Your task to perform on an android device: change the clock display to digital Image 0: 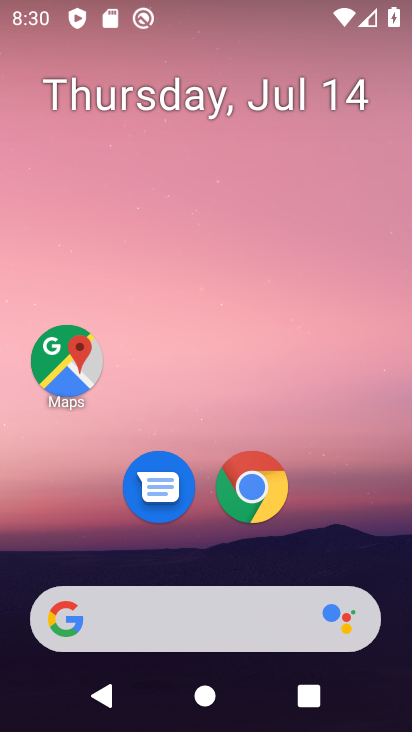
Step 0: drag from (191, 535) to (237, 70)
Your task to perform on an android device: change the clock display to digital Image 1: 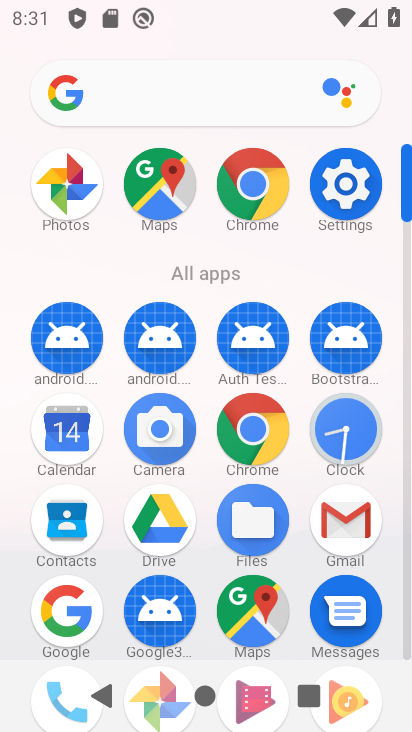
Step 1: click (331, 429)
Your task to perform on an android device: change the clock display to digital Image 2: 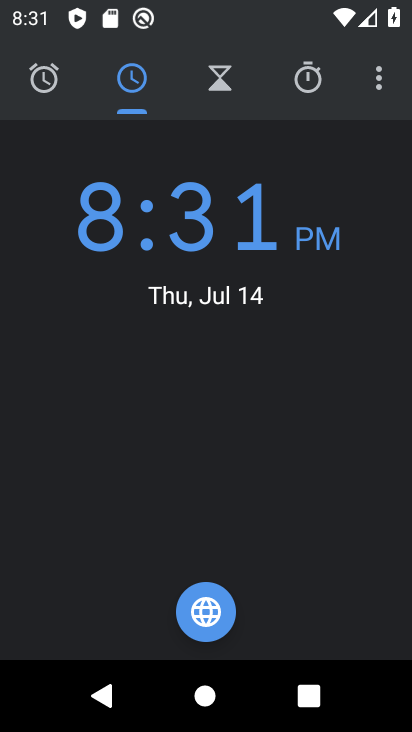
Step 2: click (375, 69)
Your task to perform on an android device: change the clock display to digital Image 3: 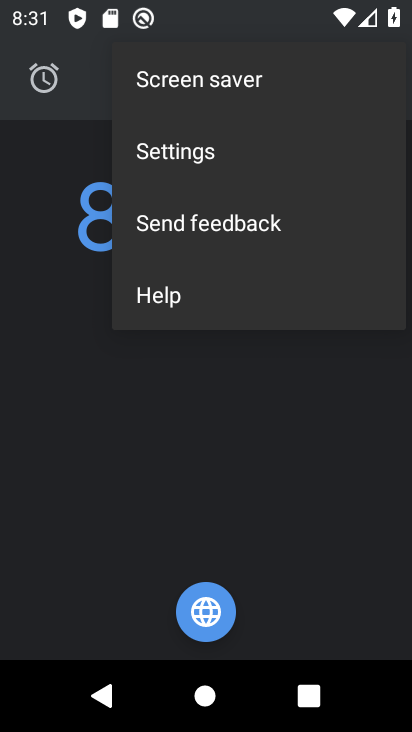
Step 3: click (168, 159)
Your task to perform on an android device: change the clock display to digital Image 4: 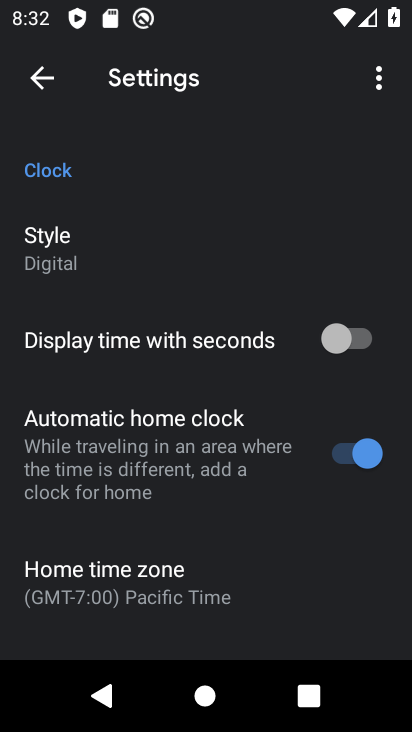
Step 4: task complete